Your task to perform on an android device: set an alarm Image 0: 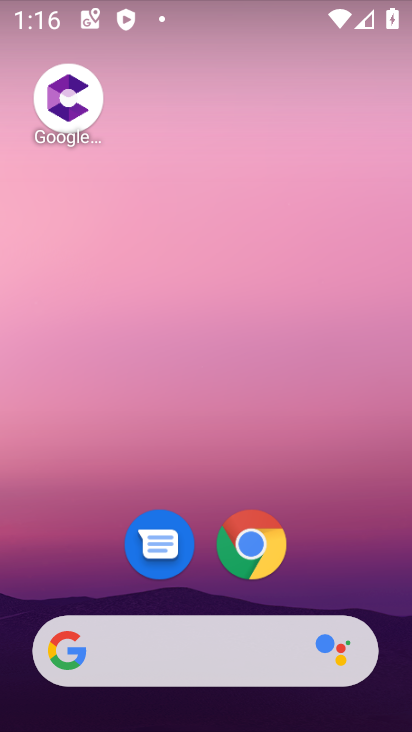
Step 0: drag from (352, 531) to (270, 8)
Your task to perform on an android device: set an alarm Image 1: 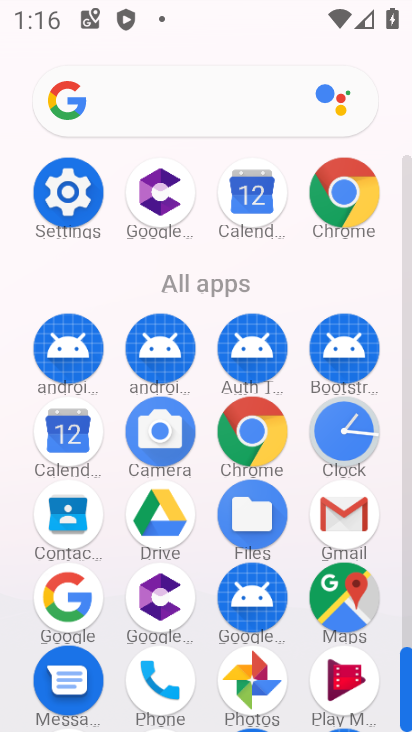
Step 1: drag from (6, 542) to (21, 190)
Your task to perform on an android device: set an alarm Image 2: 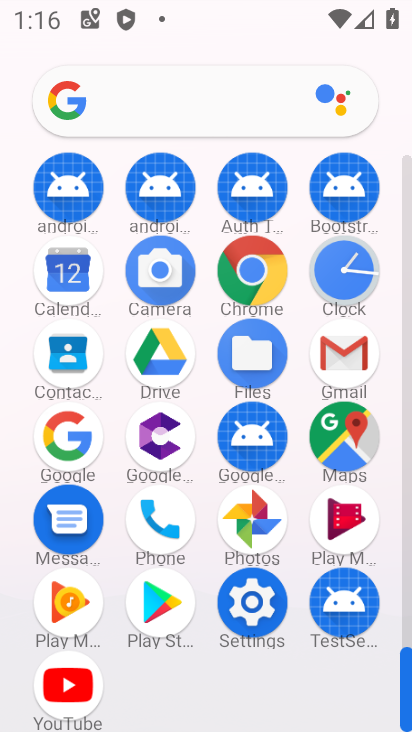
Step 2: drag from (13, 496) to (14, 267)
Your task to perform on an android device: set an alarm Image 3: 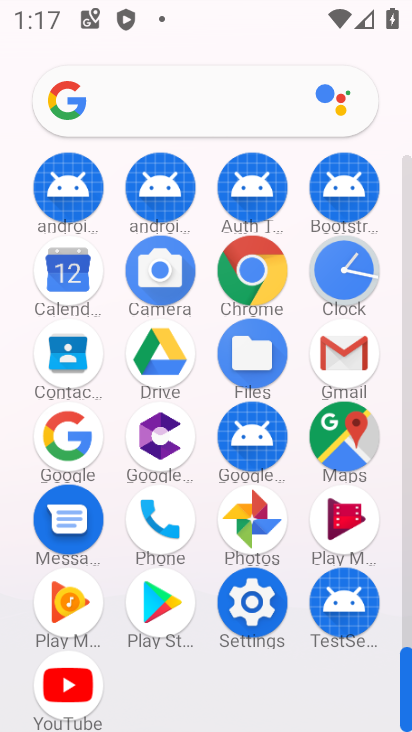
Step 3: click (346, 266)
Your task to perform on an android device: set an alarm Image 4: 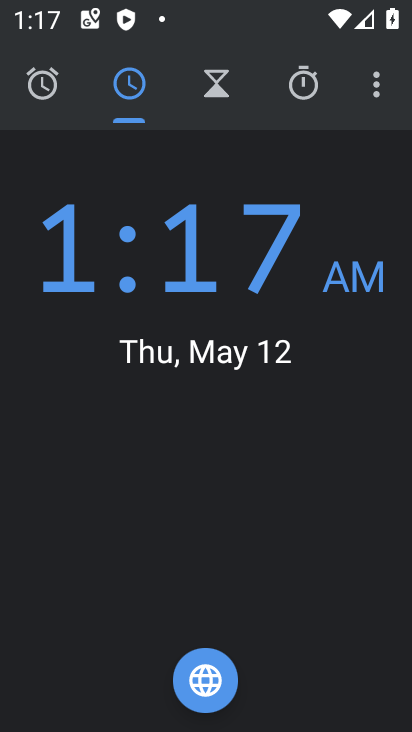
Step 4: click (50, 82)
Your task to perform on an android device: set an alarm Image 5: 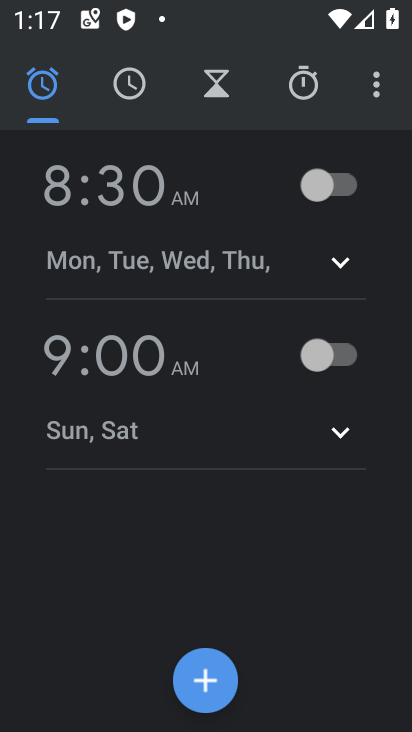
Step 5: click (209, 670)
Your task to perform on an android device: set an alarm Image 6: 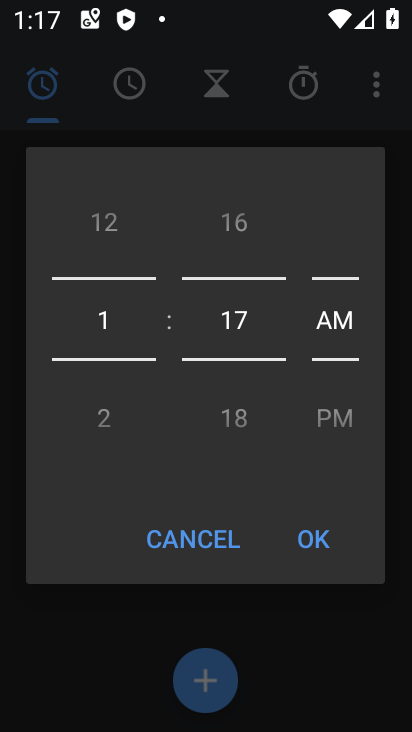
Step 6: drag from (239, 368) to (235, 141)
Your task to perform on an android device: set an alarm Image 7: 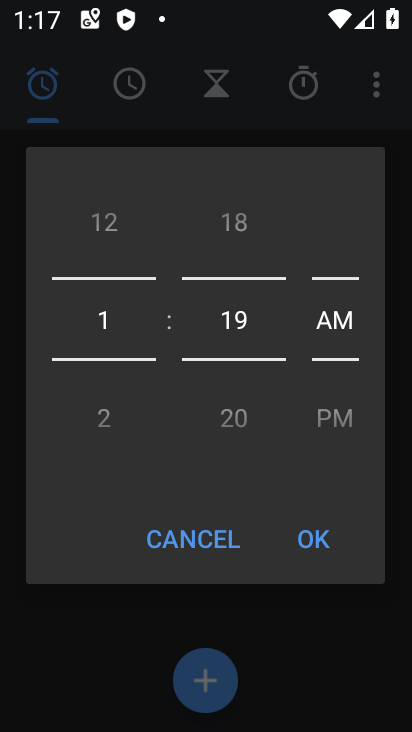
Step 7: drag from (95, 412) to (110, 217)
Your task to perform on an android device: set an alarm Image 8: 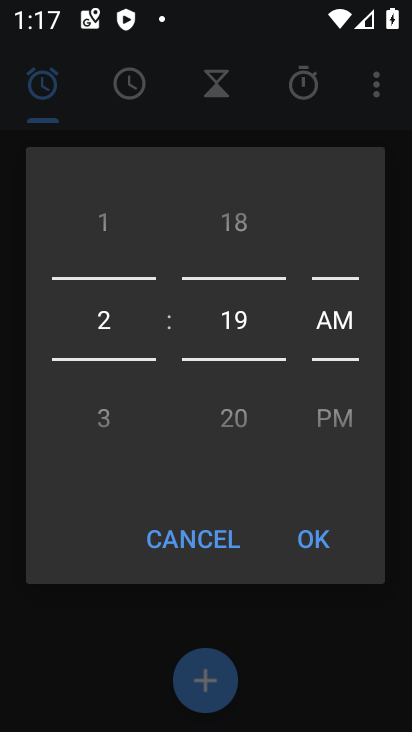
Step 8: click (320, 550)
Your task to perform on an android device: set an alarm Image 9: 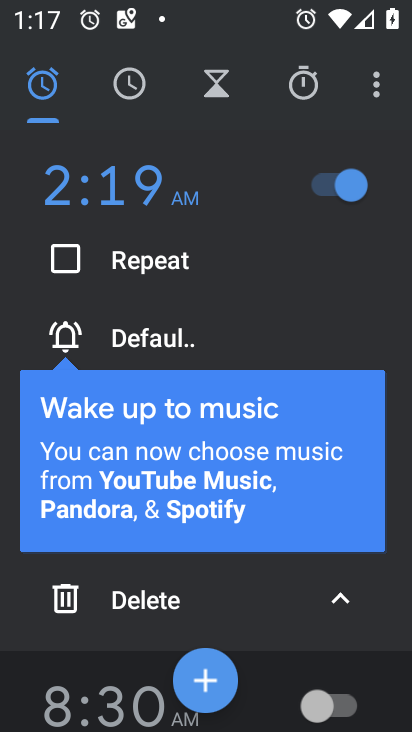
Step 9: task complete